Your task to perform on an android device: toggle javascript in the chrome app Image 0: 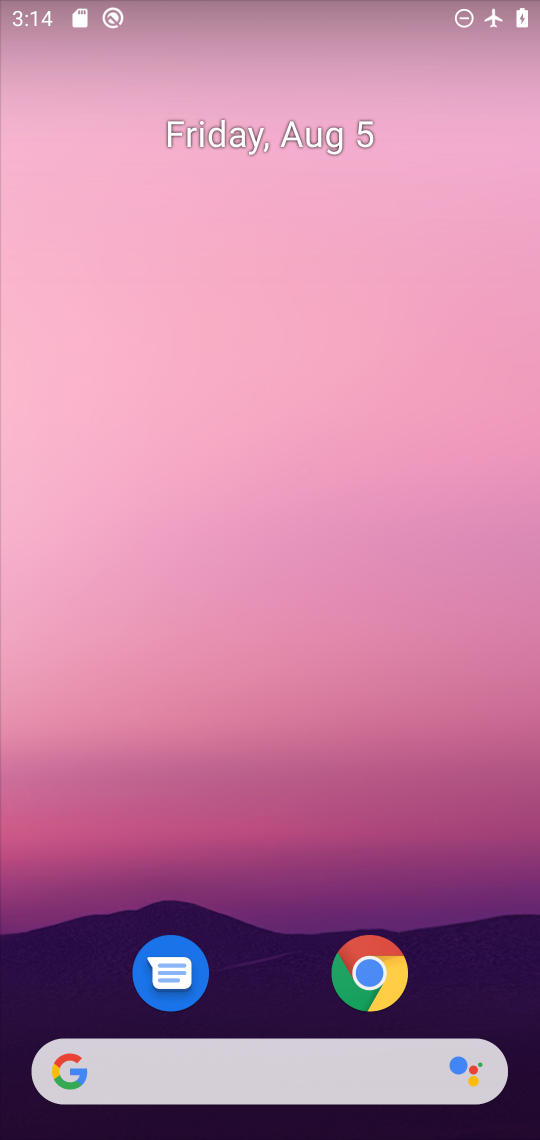
Step 0: drag from (261, 1029) to (130, 115)
Your task to perform on an android device: toggle javascript in the chrome app Image 1: 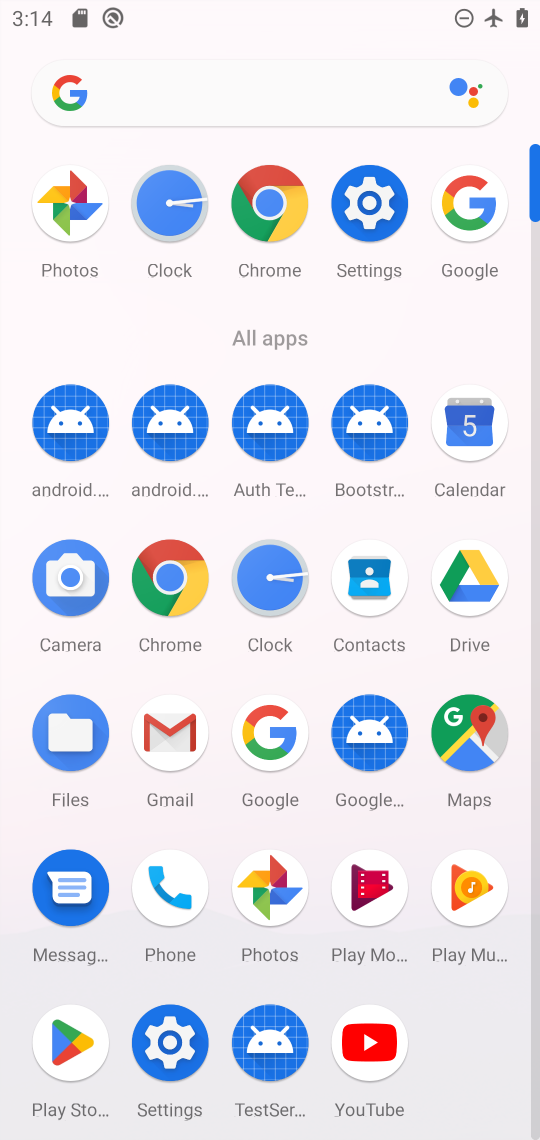
Step 1: click (264, 243)
Your task to perform on an android device: toggle javascript in the chrome app Image 2: 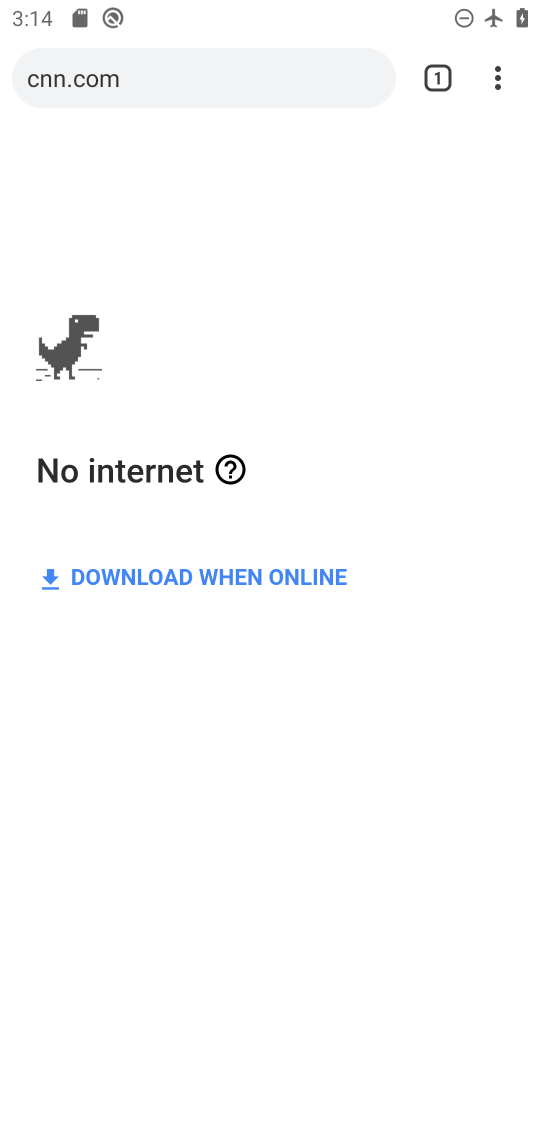
Step 2: drag from (496, 80) to (200, 867)
Your task to perform on an android device: toggle javascript in the chrome app Image 3: 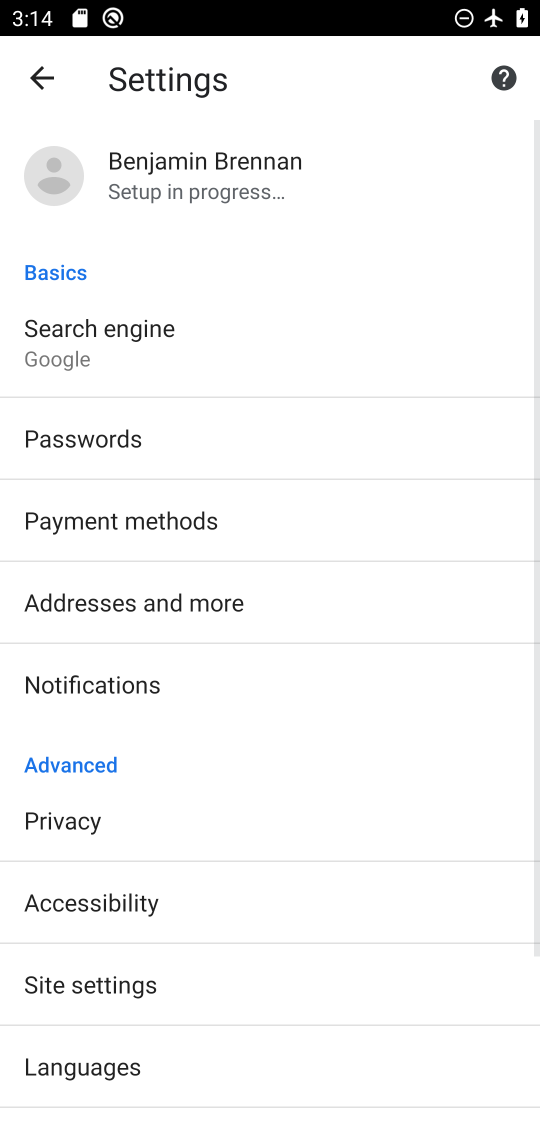
Step 3: click (125, 970)
Your task to perform on an android device: toggle javascript in the chrome app Image 4: 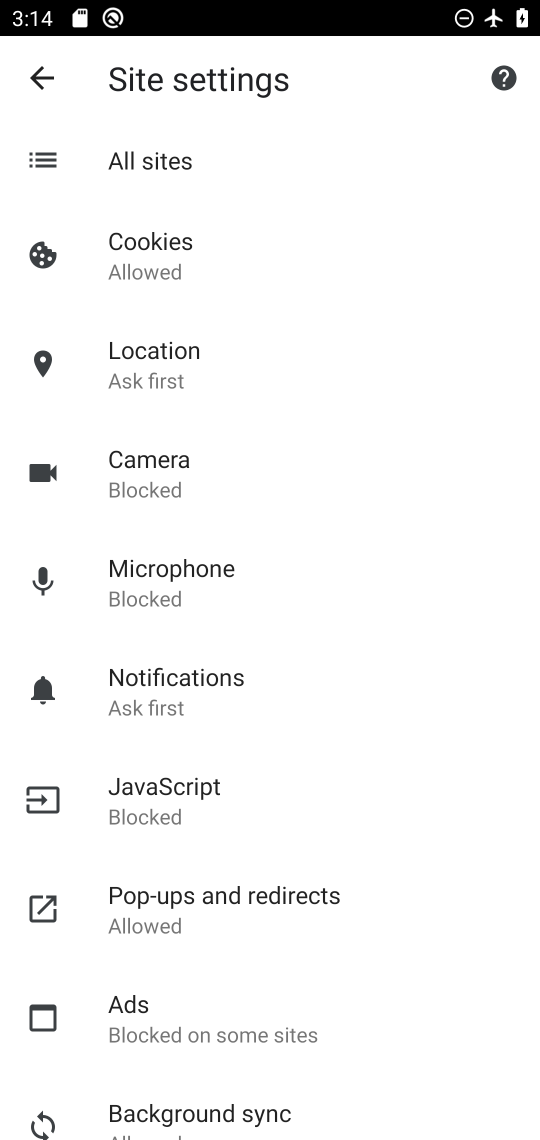
Step 4: click (131, 815)
Your task to perform on an android device: toggle javascript in the chrome app Image 5: 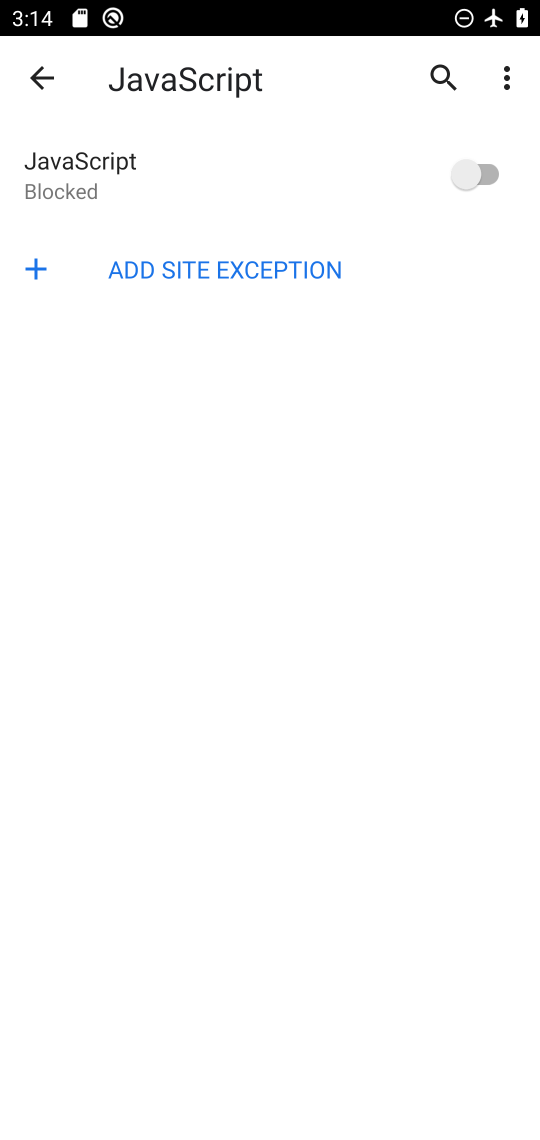
Step 5: click (461, 184)
Your task to perform on an android device: toggle javascript in the chrome app Image 6: 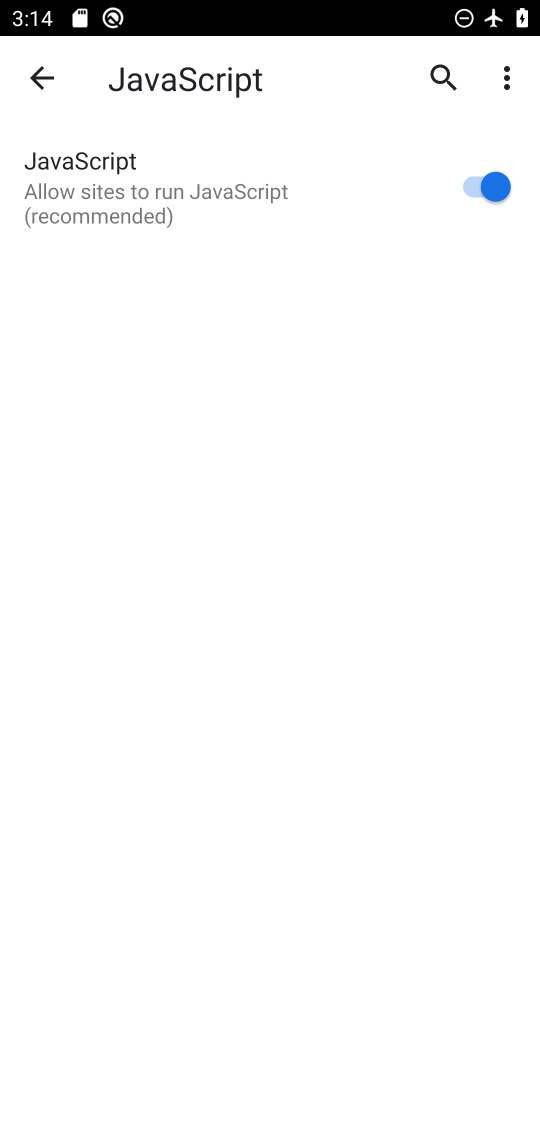
Step 6: task complete